Your task to perform on an android device: Go to Yahoo.com Image 0: 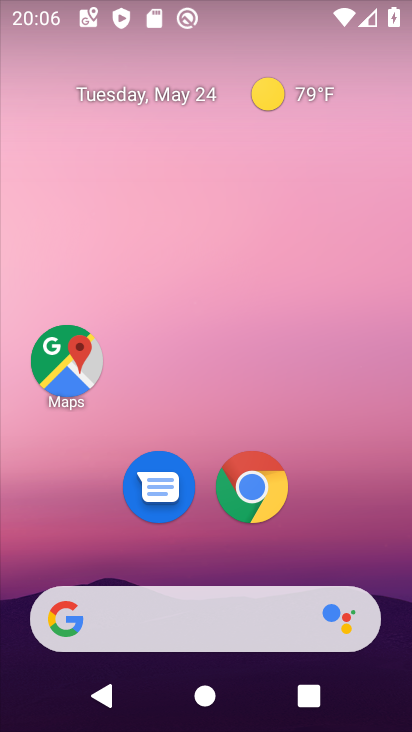
Step 0: click (388, 450)
Your task to perform on an android device: Go to Yahoo.com Image 1: 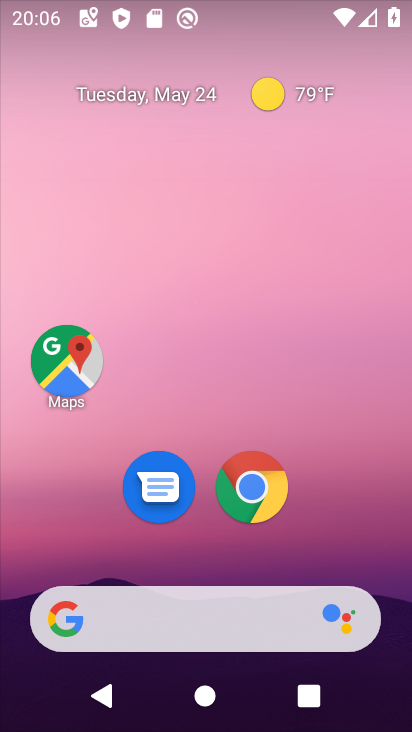
Step 1: click (241, 485)
Your task to perform on an android device: Go to Yahoo.com Image 2: 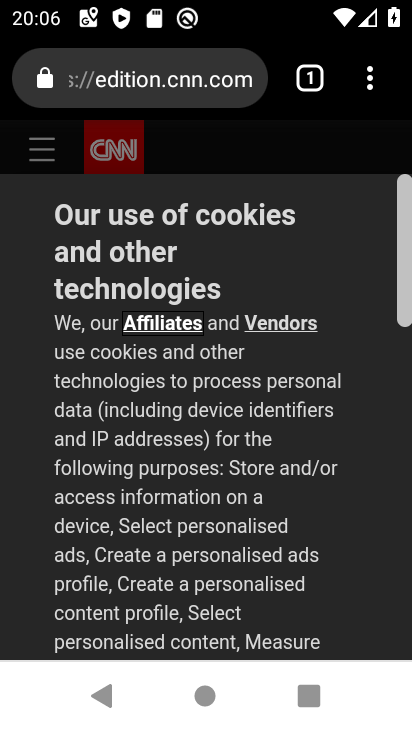
Step 2: click (307, 79)
Your task to perform on an android device: Go to Yahoo.com Image 3: 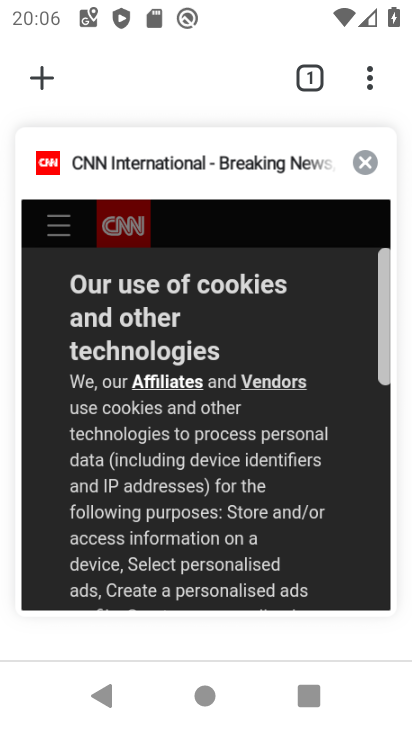
Step 3: click (41, 77)
Your task to perform on an android device: Go to Yahoo.com Image 4: 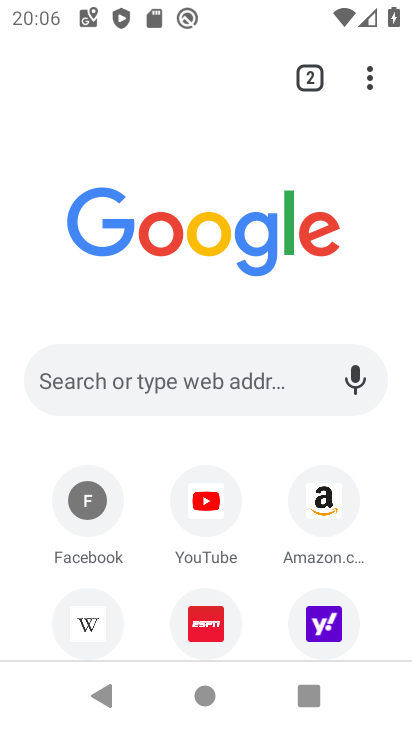
Step 4: click (309, 627)
Your task to perform on an android device: Go to Yahoo.com Image 5: 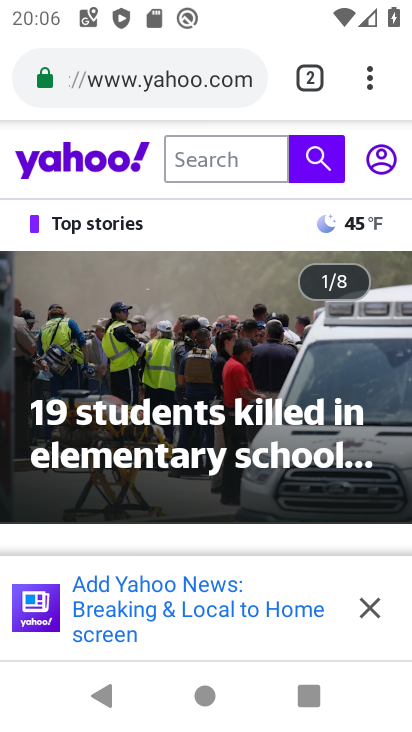
Step 5: task complete